Your task to perform on an android device: Go to notification settings Image 0: 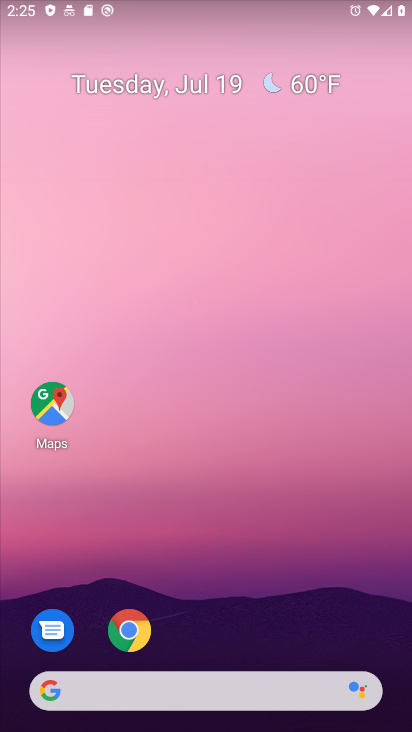
Step 0: drag from (241, 507) to (249, 19)
Your task to perform on an android device: Go to notification settings Image 1: 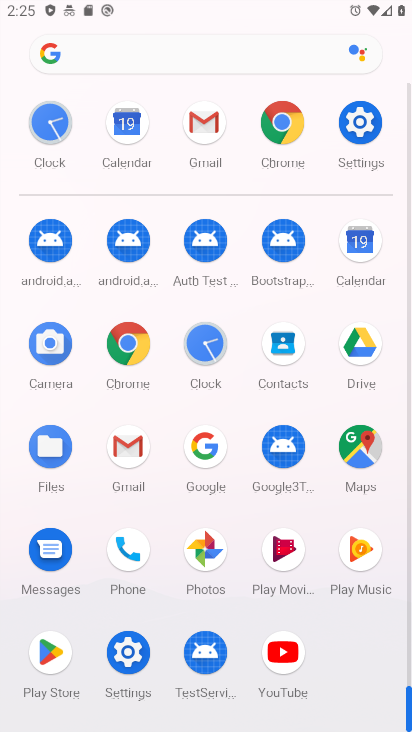
Step 1: click (359, 119)
Your task to perform on an android device: Go to notification settings Image 2: 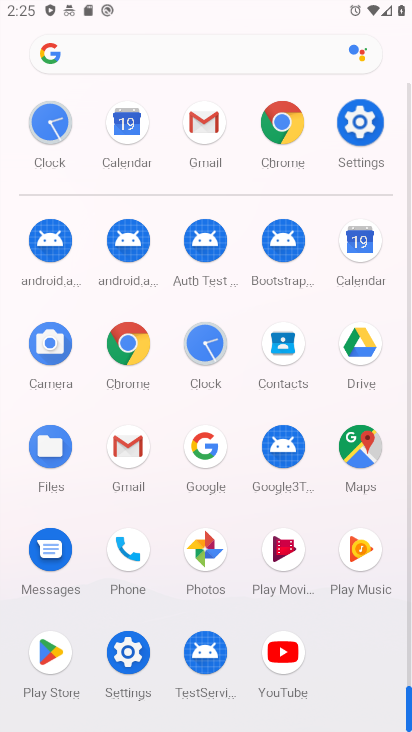
Step 2: click (362, 119)
Your task to perform on an android device: Go to notification settings Image 3: 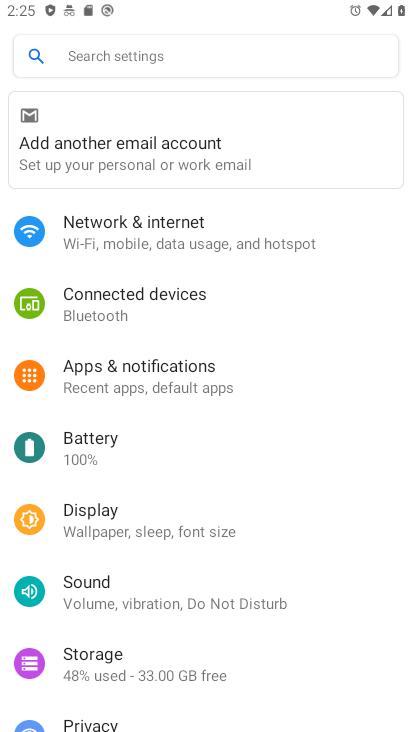
Step 3: click (112, 365)
Your task to perform on an android device: Go to notification settings Image 4: 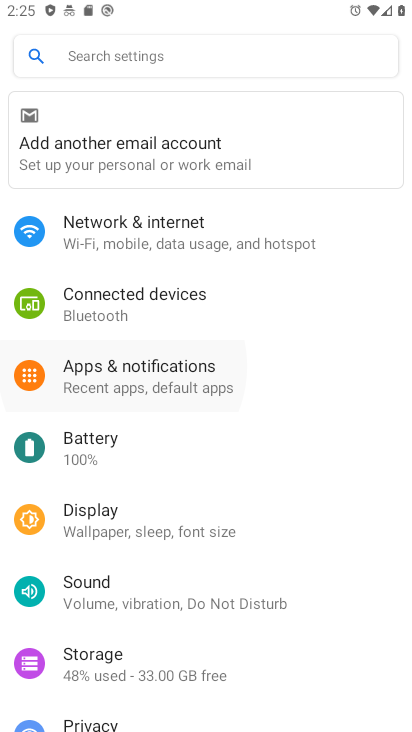
Step 4: click (121, 364)
Your task to perform on an android device: Go to notification settings Image 5: 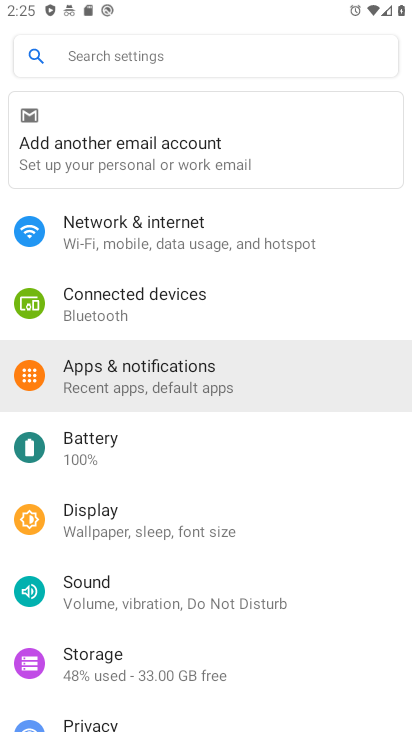
Step 5: click (122, 371)
Your task to perform on an android device: Go to notification settings Image 6: 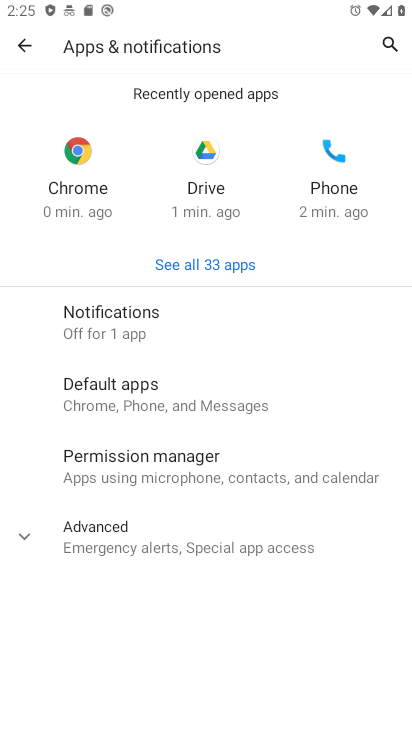
Step 6: click (100, 330)
Your task to perform on an android device: Go to notification settings Image 7: 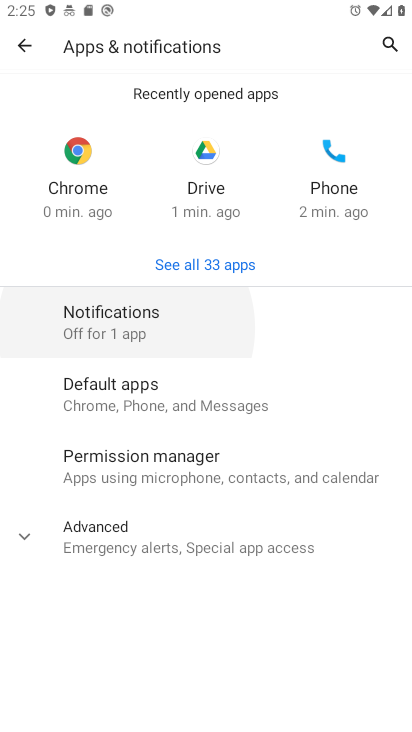
Step 7: click (106, 335)
Your task to perform on an android device: Go to notification settings Image 8: 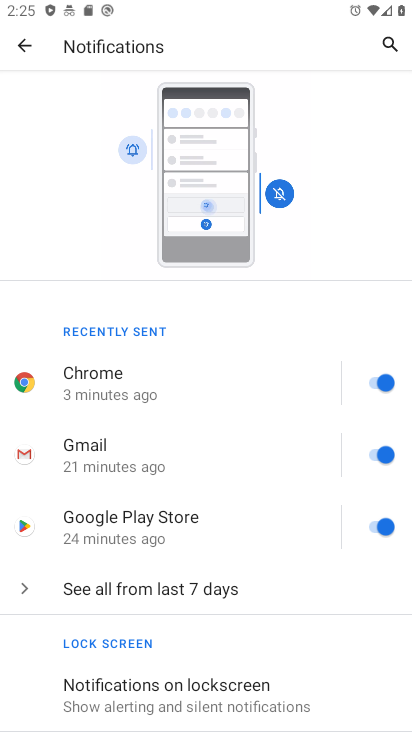
Step 8: task complete